Your task to perform on an android device: Show the shopping cart on bestbuy.com. Add rayovac triple a to the cart on bestbuy.com, then select checkout. Image 0: 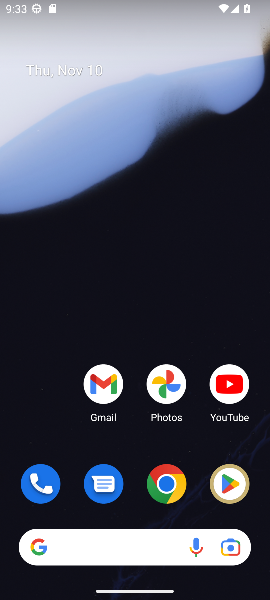
Step 0: click (172, 484)
Your task to perform on an android device: Show the shopping cart on bestbuy.com. Add rayovac triple a to the cart on bestbuy.com, then select checkout. Image 1: 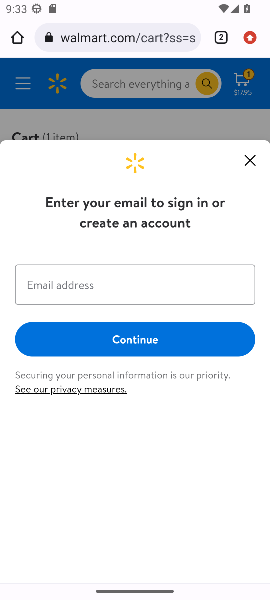
Step 1: click (121, 27)
Your task to perform on an android device: Show the shopping cart on bestbuy.com. Add rayovac triple a to the cart on bestbuy.com, then select checkout. Image 2: 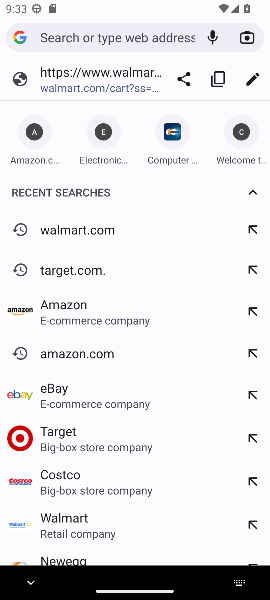
Step 2: type "bestbuy.com"
Your task to perform on an android device: Show the shopping cart on bestbuy.com. Add rayovac triple a to the cart on bestbuy.com, then select checkout. Image 3: 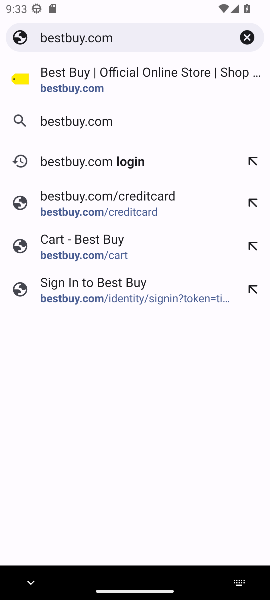
Step 3: click (78, 89)
Your task to perform on an android device: Show the shopping cart on bestbuy.com. Add rayovac triple a to the cart on bestbuy.com, then select checkout. Image 4: 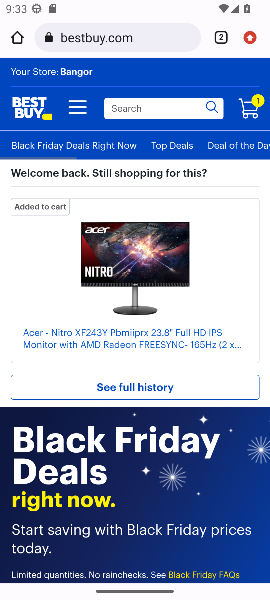
Step 4: click (249, 108)
Your task to perform on an android device: Show the shopping cart on bestbuy.com. Add rayovac triple a to the cart on bestbuy.com, then select checkout. Image 5: 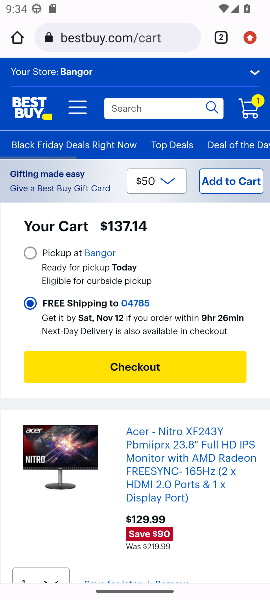
Step 5: click (153, 102)
Your task to perform on an android device: Show the shopping cart on bestbuy.com. Add rayovac triple a to the cart on bestbuy.com, then select checkout. Image 6: 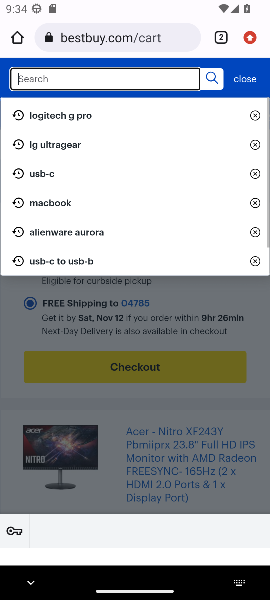
Step 6: type "rayovac triple a"
Your task to perform on an android device: Show the shopping cart on bestbuy.com. Add rayovac triple a to the cart on bestbuy.com, then select checkout. Image 7: 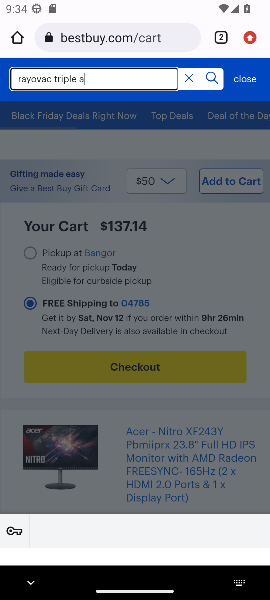
Step 7: click (216, 80)
Your task to perform on an android device: Show the shopping cart on bestbuy.com. Add rayovac triple a to the cart on bestbuy.com, then select checkout. Image 8: 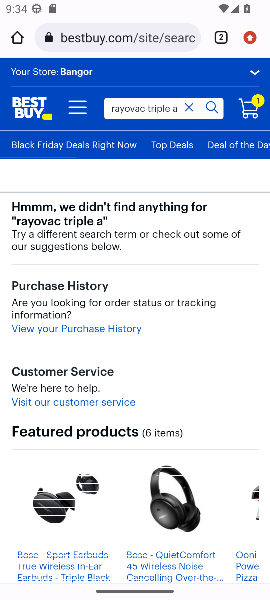
Step 8: task complete